Your task to perform on an android device: delete browsing data in the chrome app Image 0: 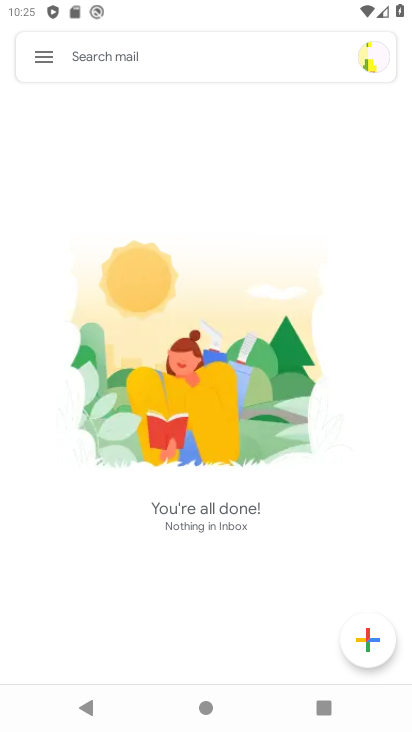
Step 0: press home button
Your task to perform on an android device: delete browsing data in the chrome app Image 1: 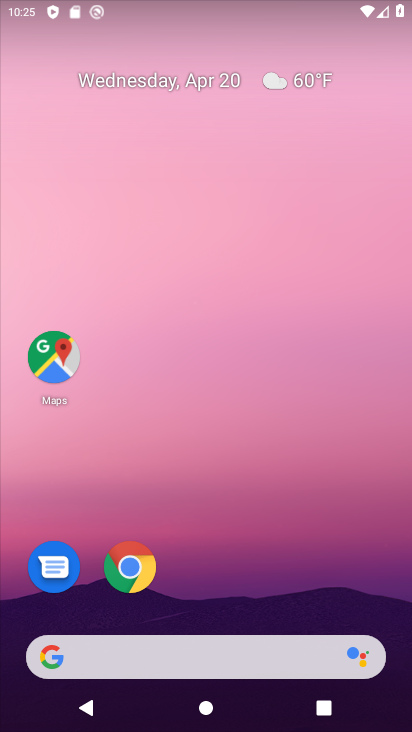
Step 1: click (123, 564)
Your task to perform on an android device: delete browsing data in the chrome app Image 2: 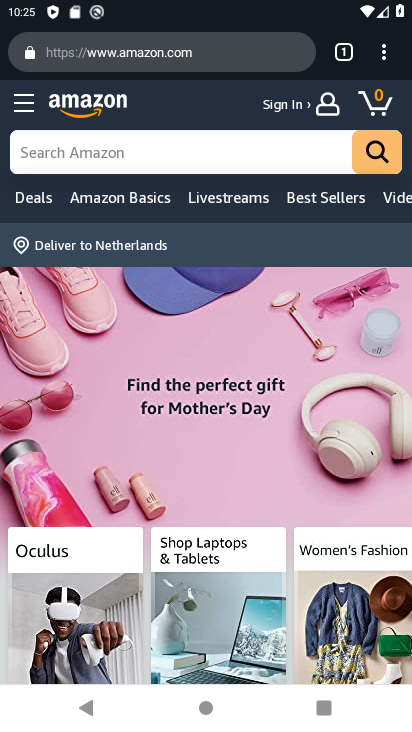
Step 2: click (382, 62)
Your task to perform on an android device: delete browsing data in the chrome app Image 3: 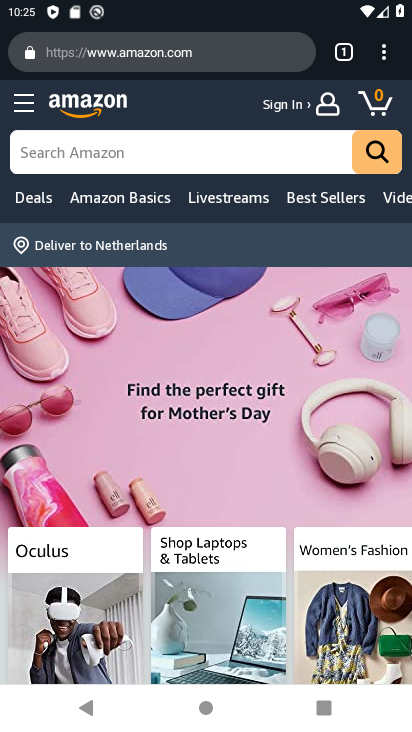
Step 3: click (384, 67)
Your task to perform on an android device: delete browsing data in the chrome app Image 4: 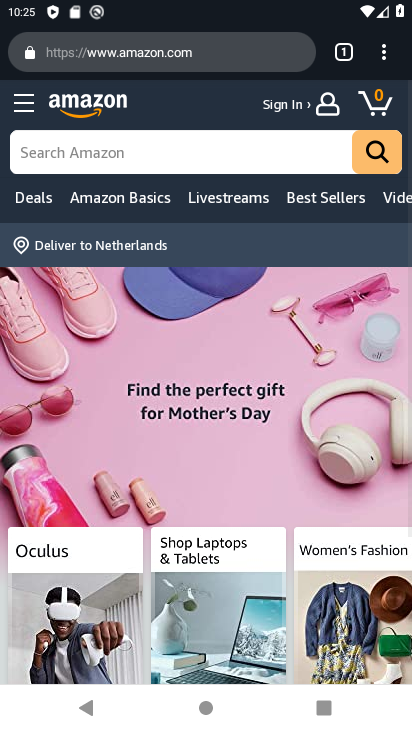
Step 4: click (384, 67)
Your task to perform on an android device: delete browsing data in the chrome app Image 5: 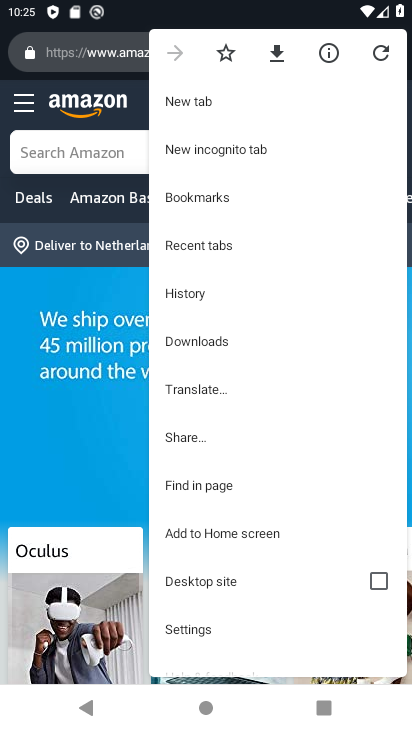
Step 5: click (200, 285)
Your task to perform on an android device: delete browsing data in the chrome app Image 6: 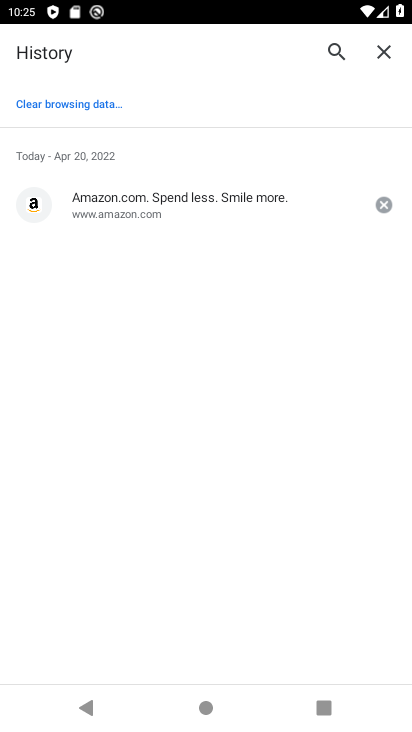
Step 6: click (85, 105)
Your task to perform on an android device: delete browsing data in the chrome app Image 7: 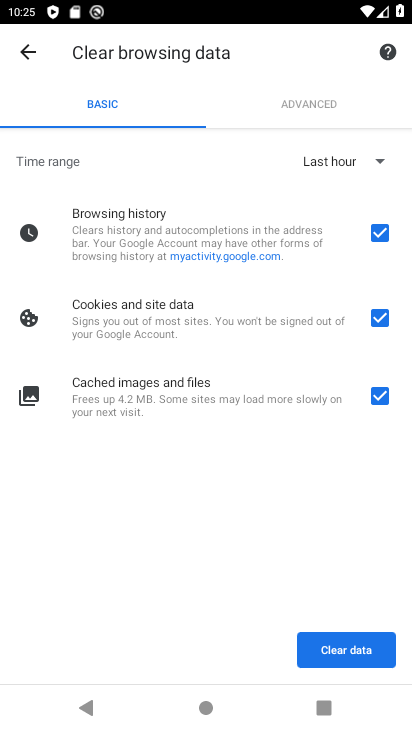
Step 7: click (377, 661)
Your task to perform on an android device: delete browsing data in the chrome app Image 8: 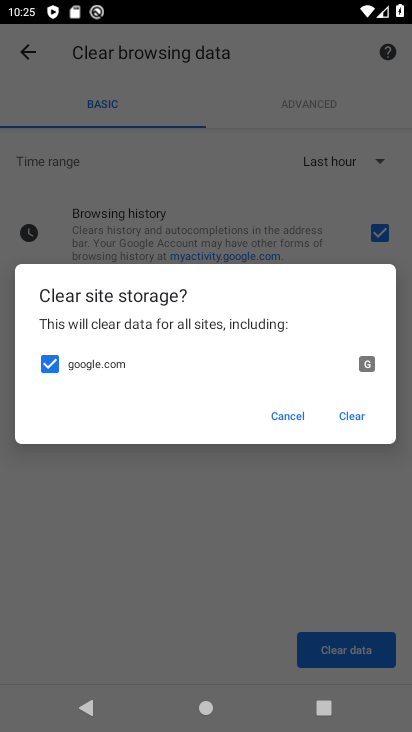
Step 8: click (278, 418)
Your task to perform on an android device: delete browsing data in the chrome app Image 9: 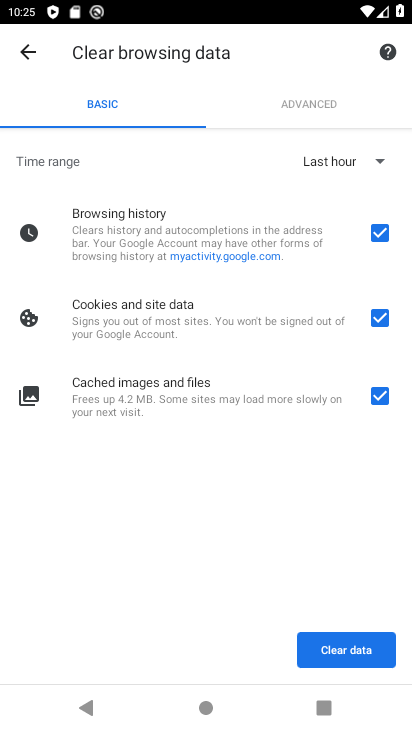
Step 9: click (366, 154)
Your task to perform on an android device: delete browsing data in the chrome app Image 10: 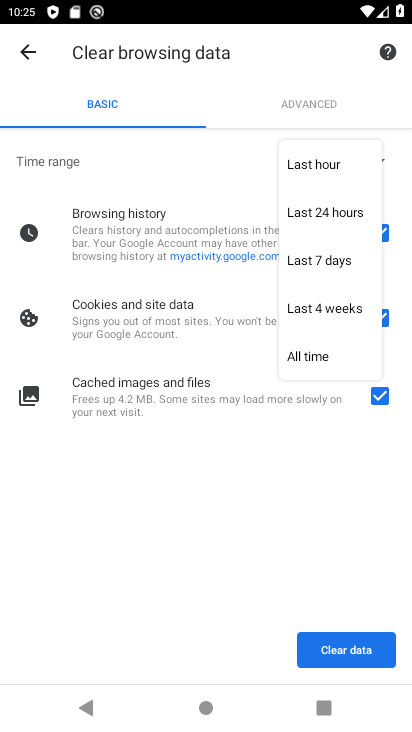
Step 10: click (331, 356)
Your task to perform on an android device: delete browsing data in the chrome app Image 11: 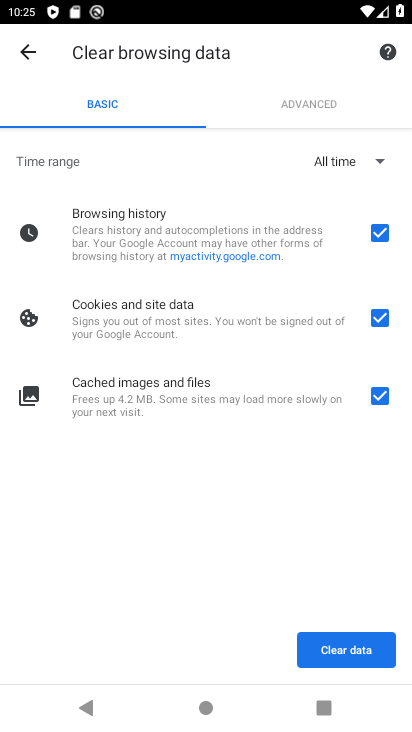
Step 11: click (374, 318)
Your task to perform on an android device: delete browsing data in the chrome app Image 12: 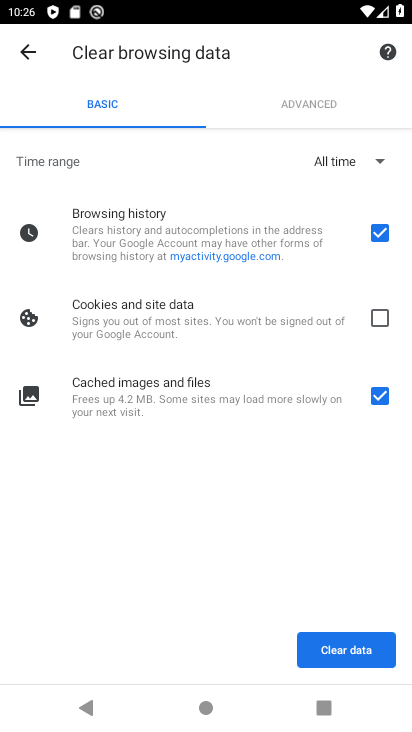
Step 12: click (377, 320)
Your task to perform on an android device: delete browsing data in the chrome app Image 13: 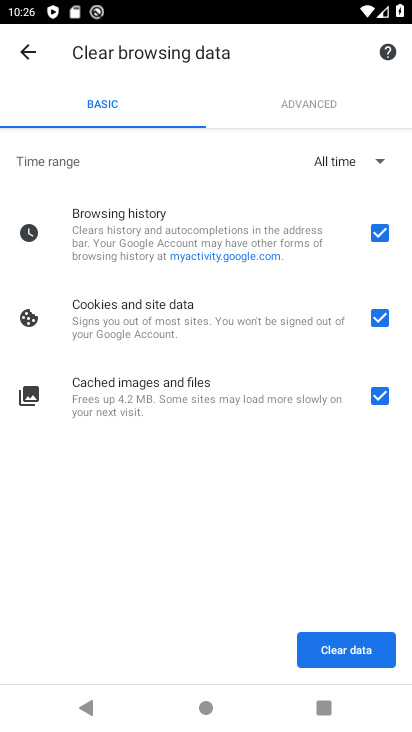
Step 13: click (355, 648)
Your task to perform on an android device: delete browsing data in the chrome app Image 14: 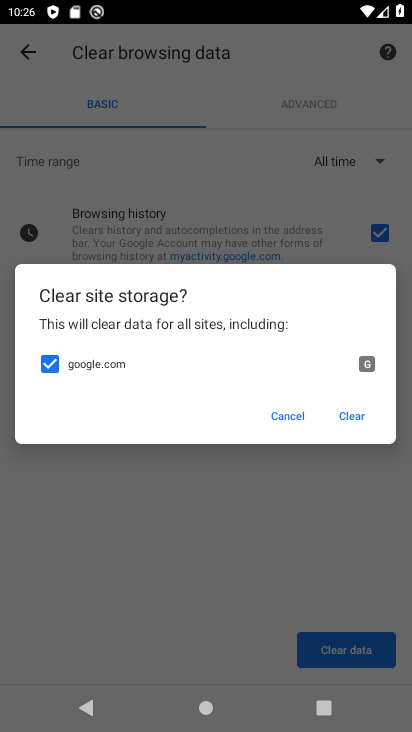
Step 14: click (351, 419)
Your task to perform on an android device: delete browsing data in the chrome app Image 15: 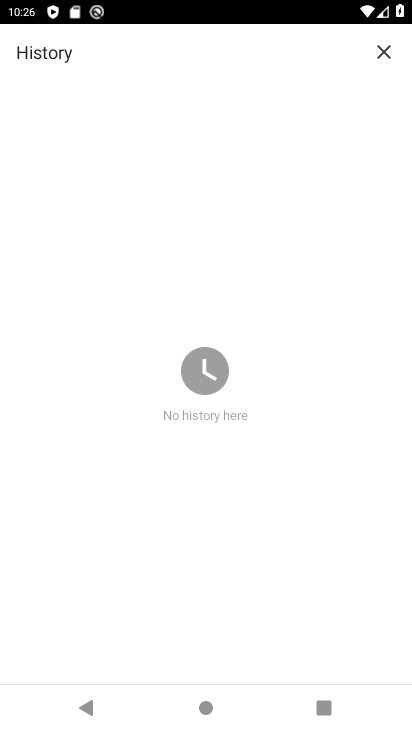
Step 15: task complete